Your task to perform on an android device: turn off javascript in the chrome app Image 0: 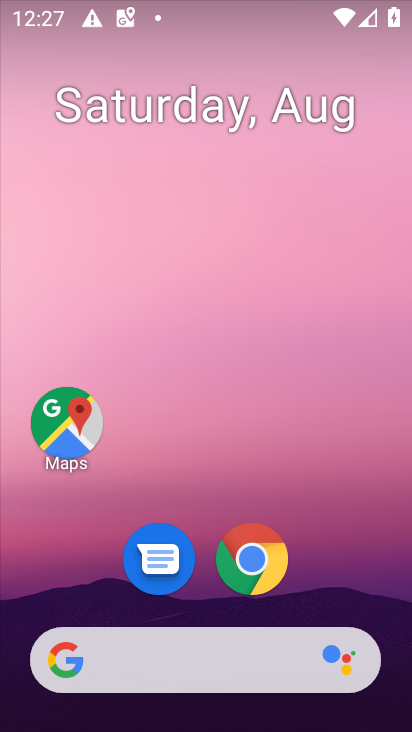
Step 0: drag from (355, 605) to (329, 108)
Your task to perform on an android device: turn off javascript in the chrome app Image 1: 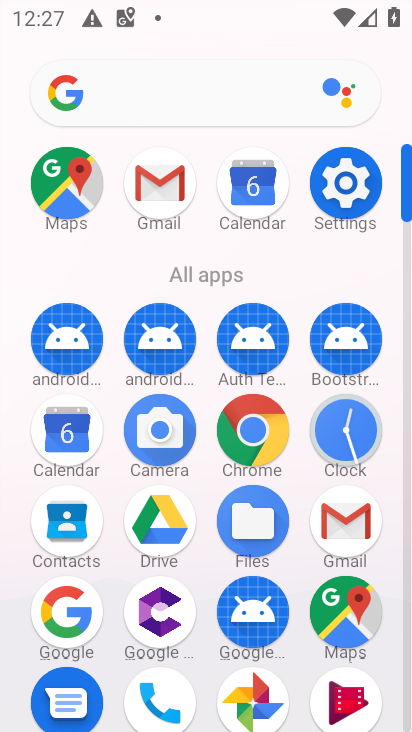
Step 1: click (253, 442)
Your task to perform on an android device: turn off javascript in the chrome app Image 2: 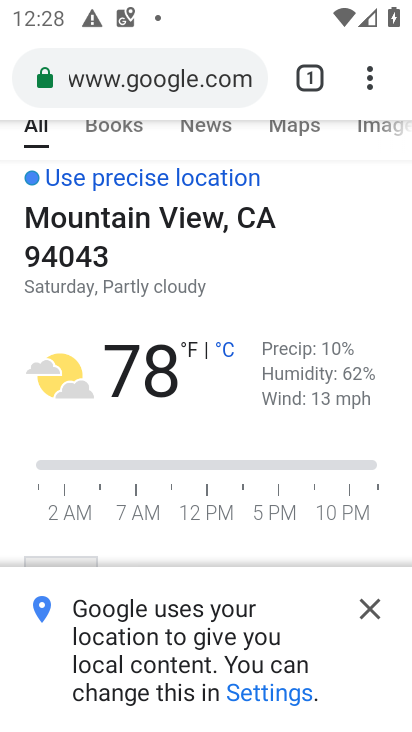
Step 2: click (375, 77)
Your task to perform on an android device: turn off javascript in the chrome app Image 3: 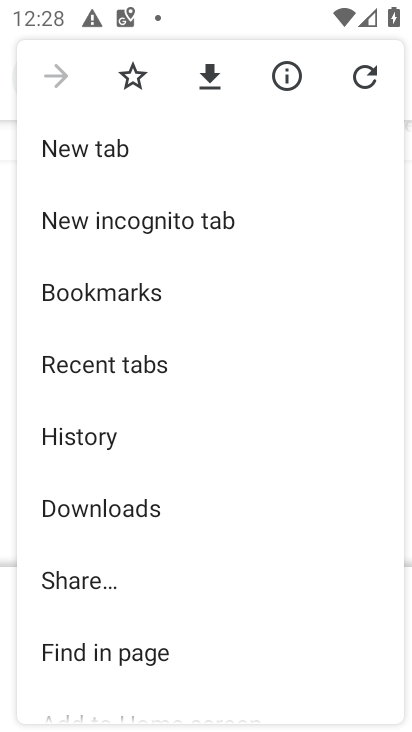
Step 3: drag from (241, 604) to (223, 244)
Your task to perform on an android device: turn off javascript in the chrome app Image 4: 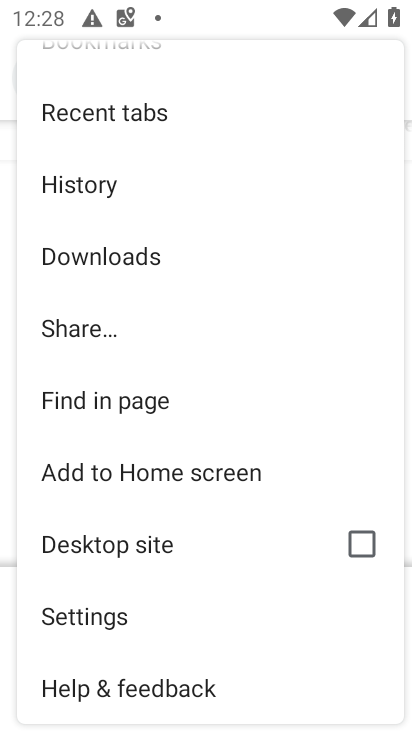
Step 4: click (183, 624)
Your task to perform on an android device: turn off javascript in the chrome app Image 5: 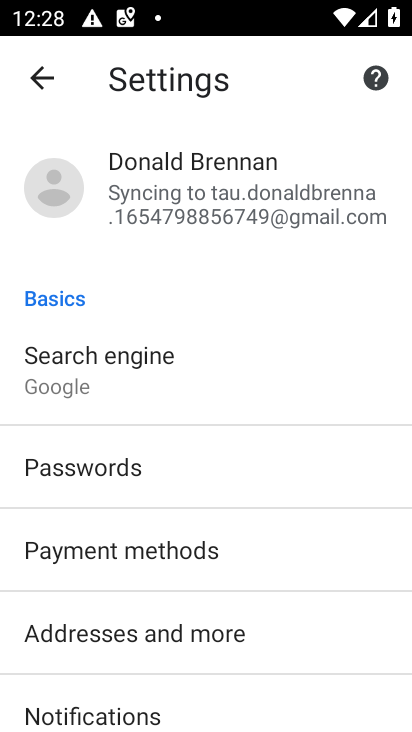
Step 5: drag from (282, 669) to (230, 220)
Your task to perform on an android device: turn off javascript in the chrome app Image 6: 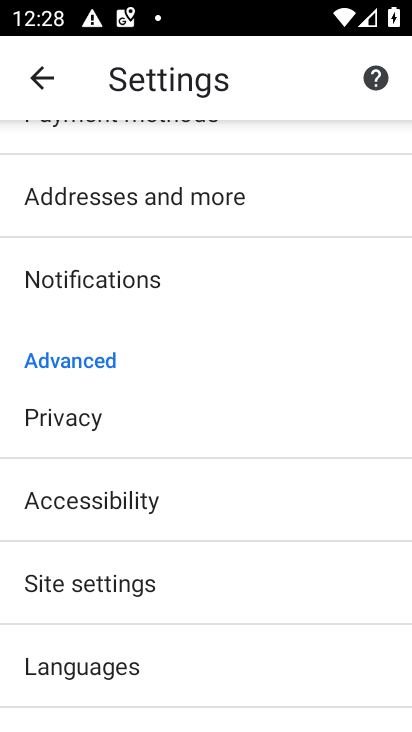
Step 6: click (270, 606)
Your task to perform on an android device: turn off javascript in the chrome app Image 7: 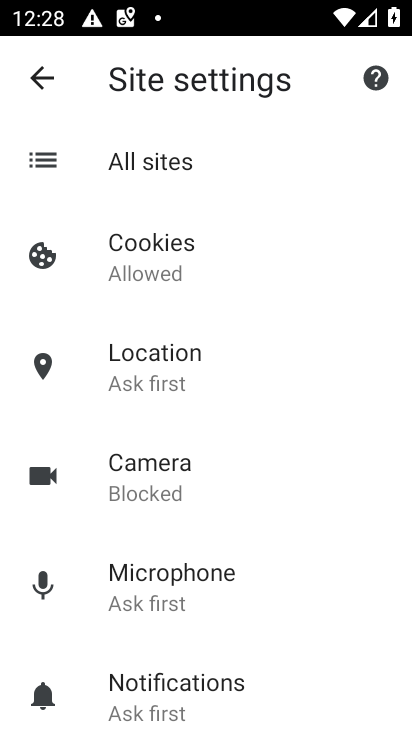
Step 7: drag from (251, 651) to (299, 10)
Your task to perform on an android device: turn off javascript in the chrome app Image 8: 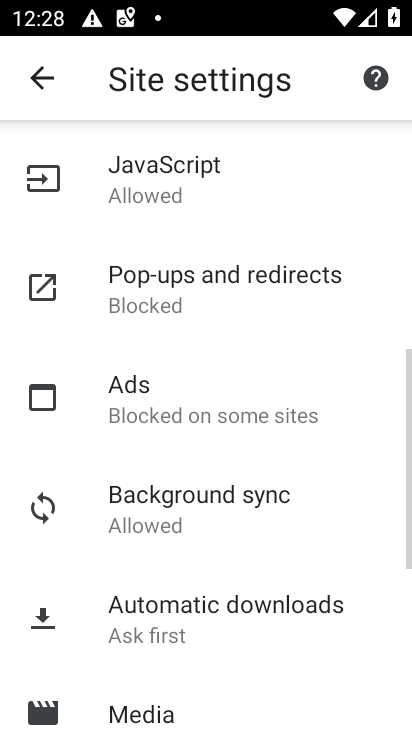
Step 8: click (246, 187)
Your task to perform on an android device: turn off javascript in the chrome app Image 9: 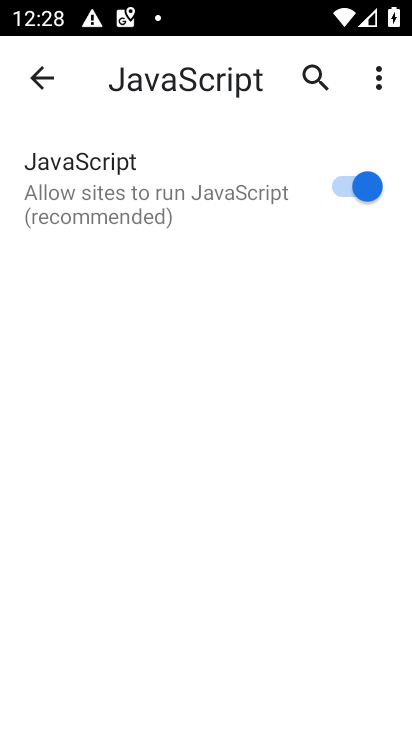
Step 9: click (357, 173)
Your task to perform on an android device: turn off javascript in the chrome app Image 10: 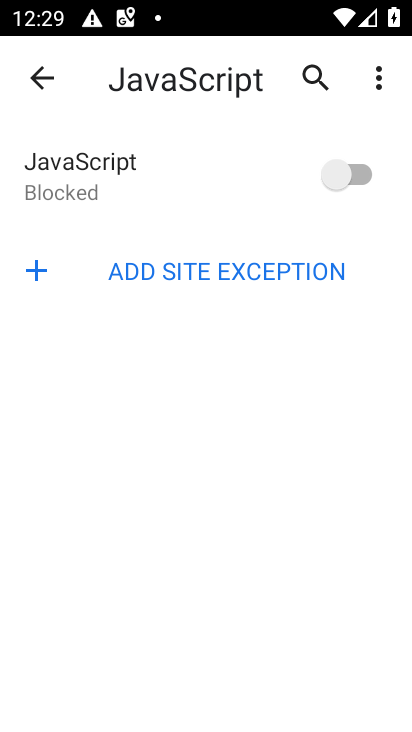
Step 10: task complete